Your task to perform on an android device: turn off smart reply in the gmail app Image 0: 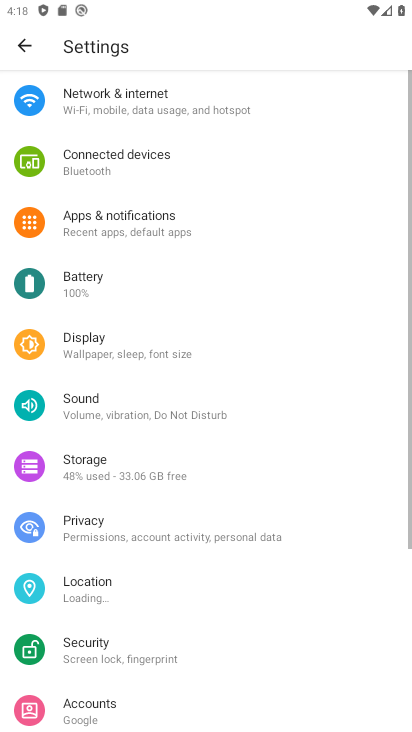
Step 0: press home button
Your task to perform on an android device: turn off smart reply in the gmail app Image 1: 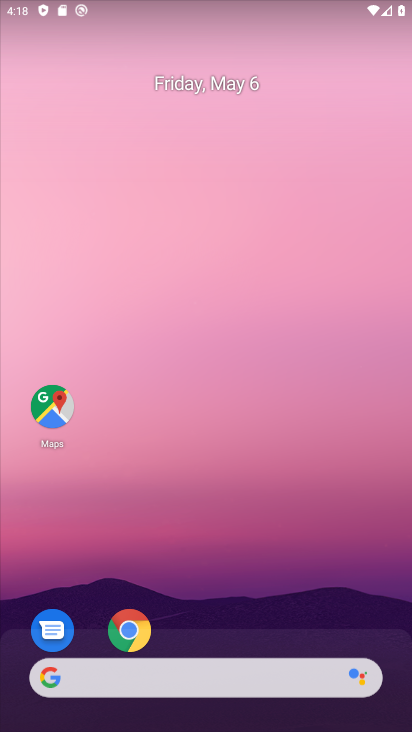
Step 1: drag from (231, 653) to (243, 66)
Your task to perform on an android device: turn off smart reply in the gmail app Image 2: 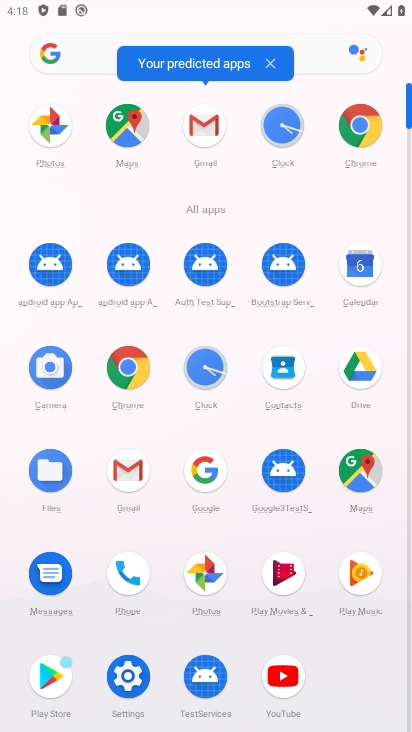
Step 2: click (130, 477)
Your task to perform on an android device: turn off smart reply in the gmail app Image 3: 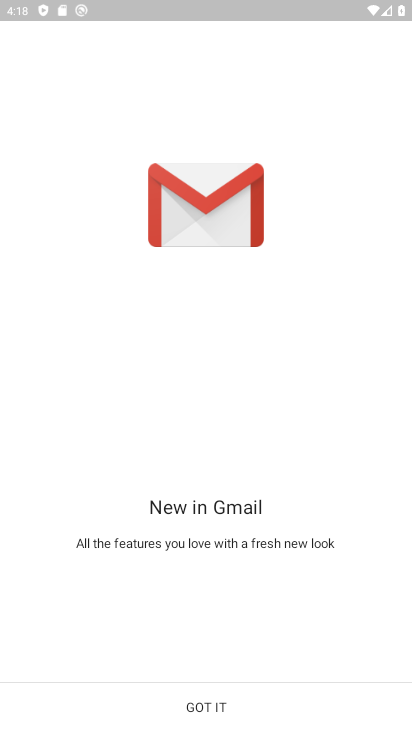
Step 3: click (200, 704)
Your task to perform on an android device: turn off smart reply in the gmail app Image 4: 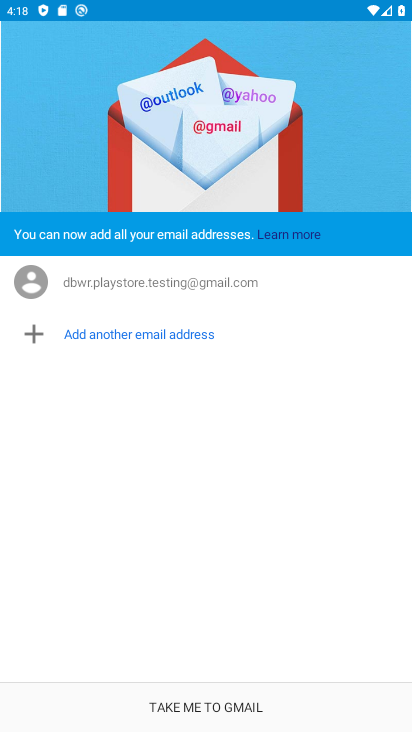
Step 4: click (183, 696)
Your task to perform on an android device: turn off smart reply in the gmail app Image 5: 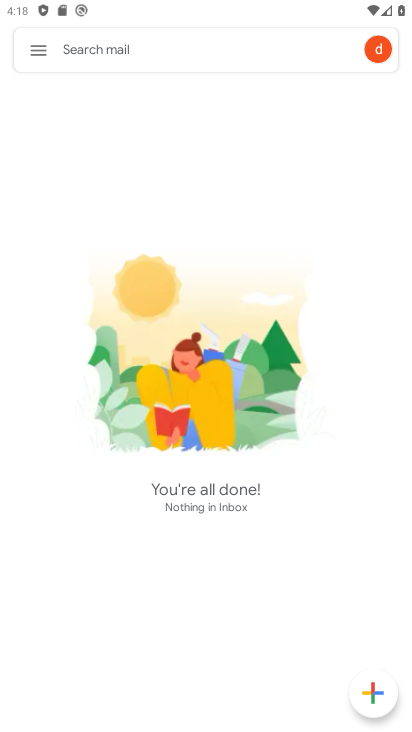
Step 5: click (40, 47)
Your task to perform on an android device: turn off smart reply in the gmail app Image 6: 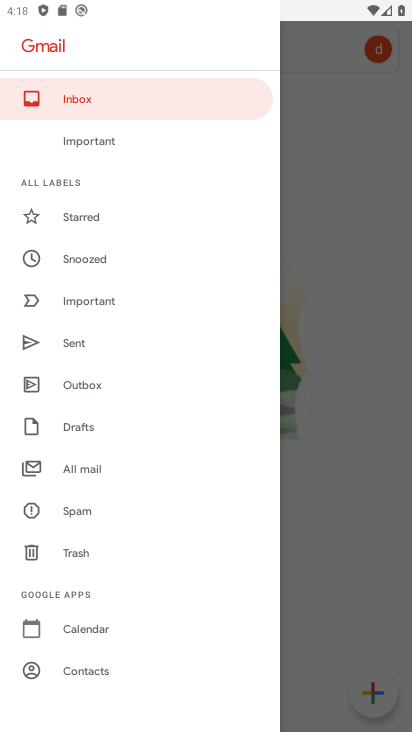
Step 6: drag from (103, 627) to (135, 387)
Your task to perform on an android device: turn off smart reply in the gmail app Image 7: 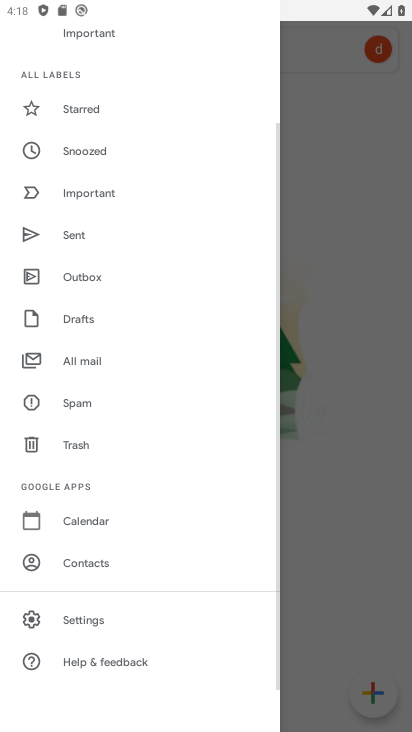
Step 7: click (118, 619)
Your task to perform on an android device: turn off smart reply in the gmail app Image 8: 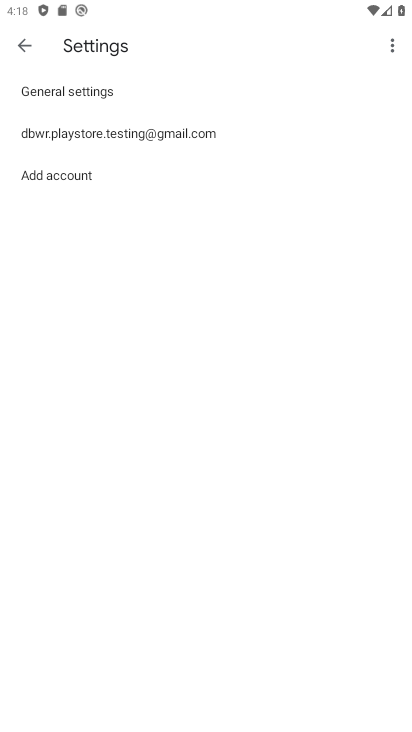
Step 8: click (173, 134)
Your task to perform on an android device: turn off smart reply in the gmail app Image 9: 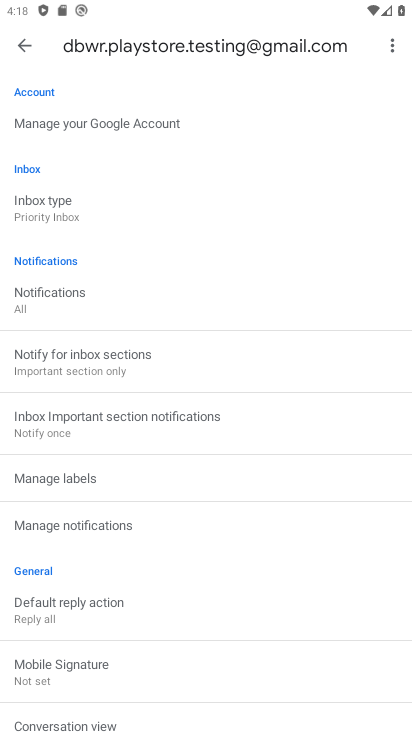
Step 9: drag from (133, 590) to (204, 322)
Your task to perform on an android device: turn off smart reply in the gmail app Image 10: 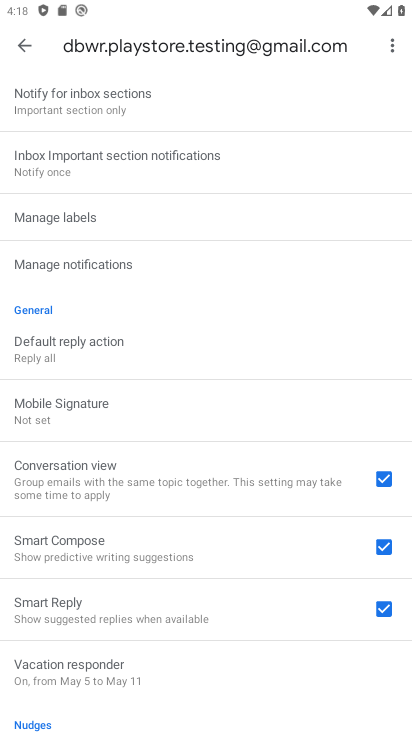
Step 10: click (361, 617)
Your task to perform on an android device: turn off smart reply in the gmail app Image 11: 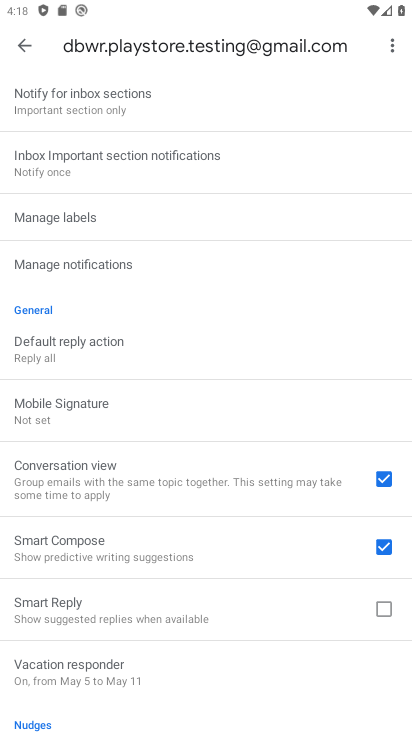
Step 11: task complete